Your task to perform on an android device: uninstall "Pluto TV - Live TV and Movies" Image 0: 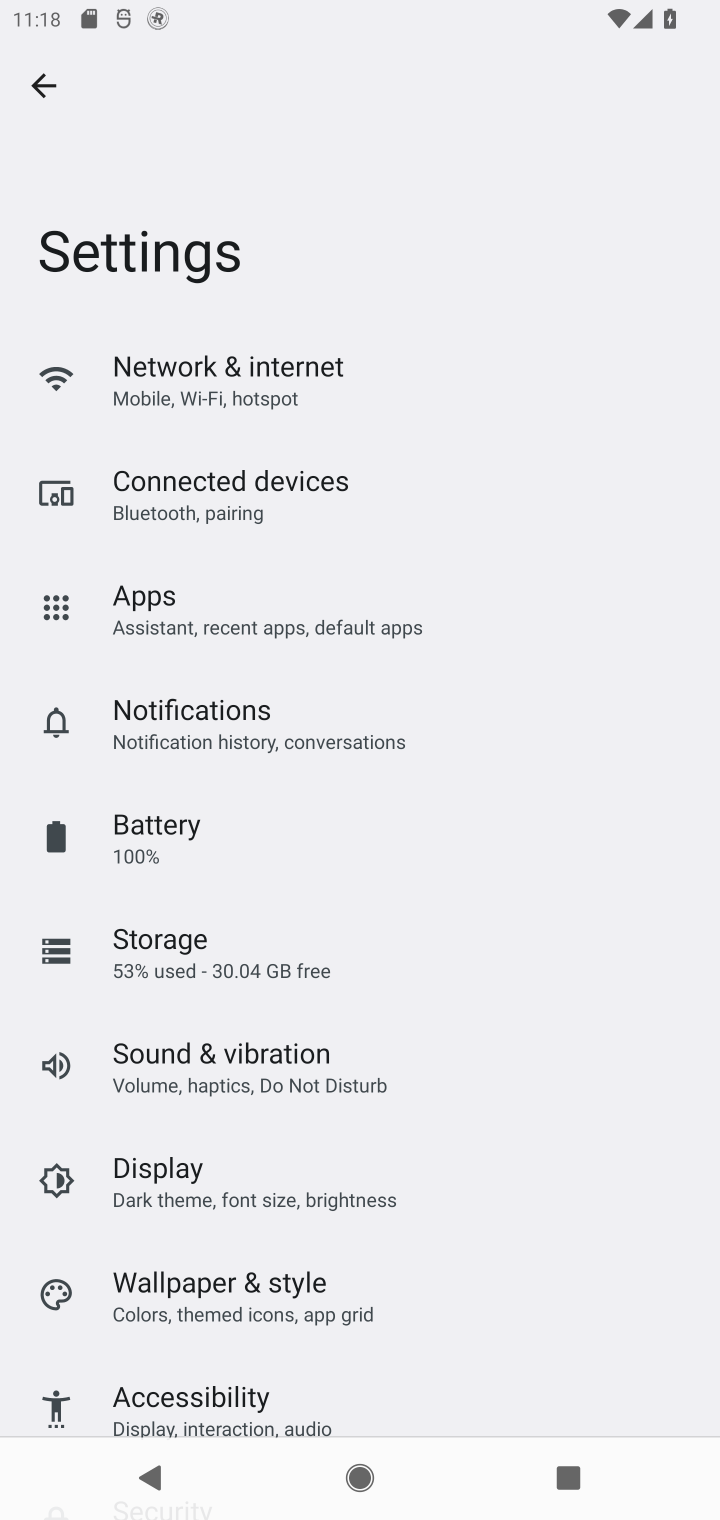
Step 0: press home button
Your task to perform on an android device: uninstall "Pluto TV - Live TV and Movies" Image 1: 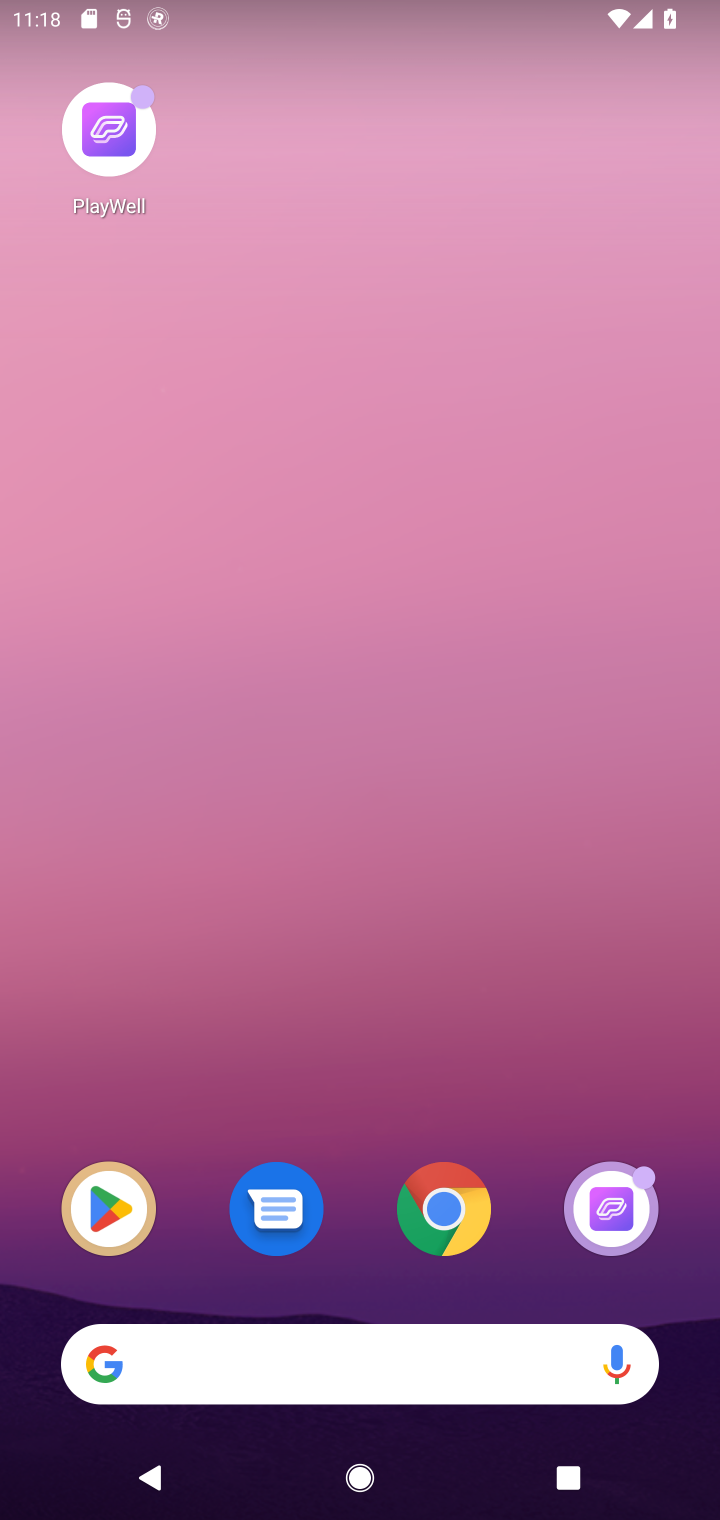
Step 1: drag from (523, 1220) to (481, 121)
Your task to perform on an android device: uninstall "Pluto TV - Live TV and Movies" Image 2: 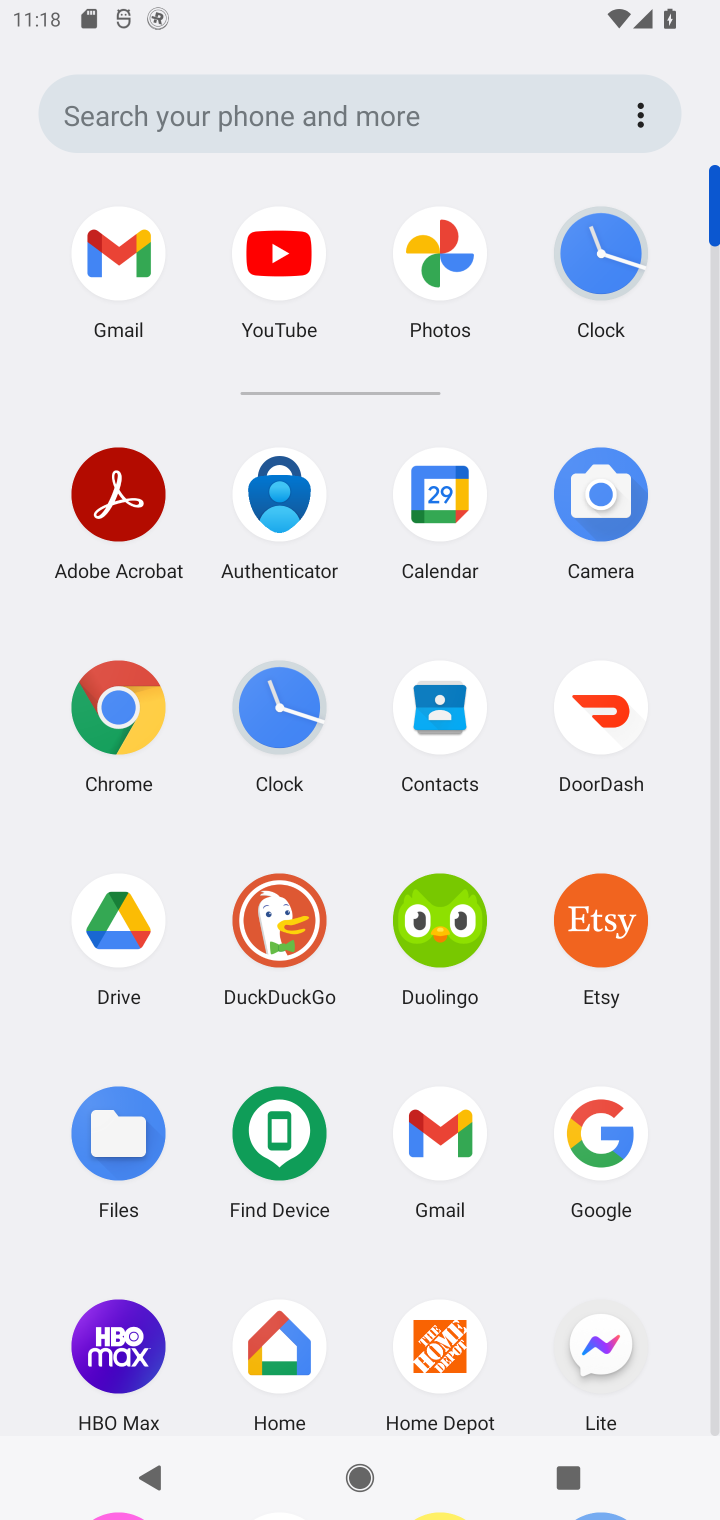
Step 2: drag from (534, 1271) to (521, 439)
Your task to perform on an android device: uninstall "Pluto TV - Live TV and Movies" Image 3: 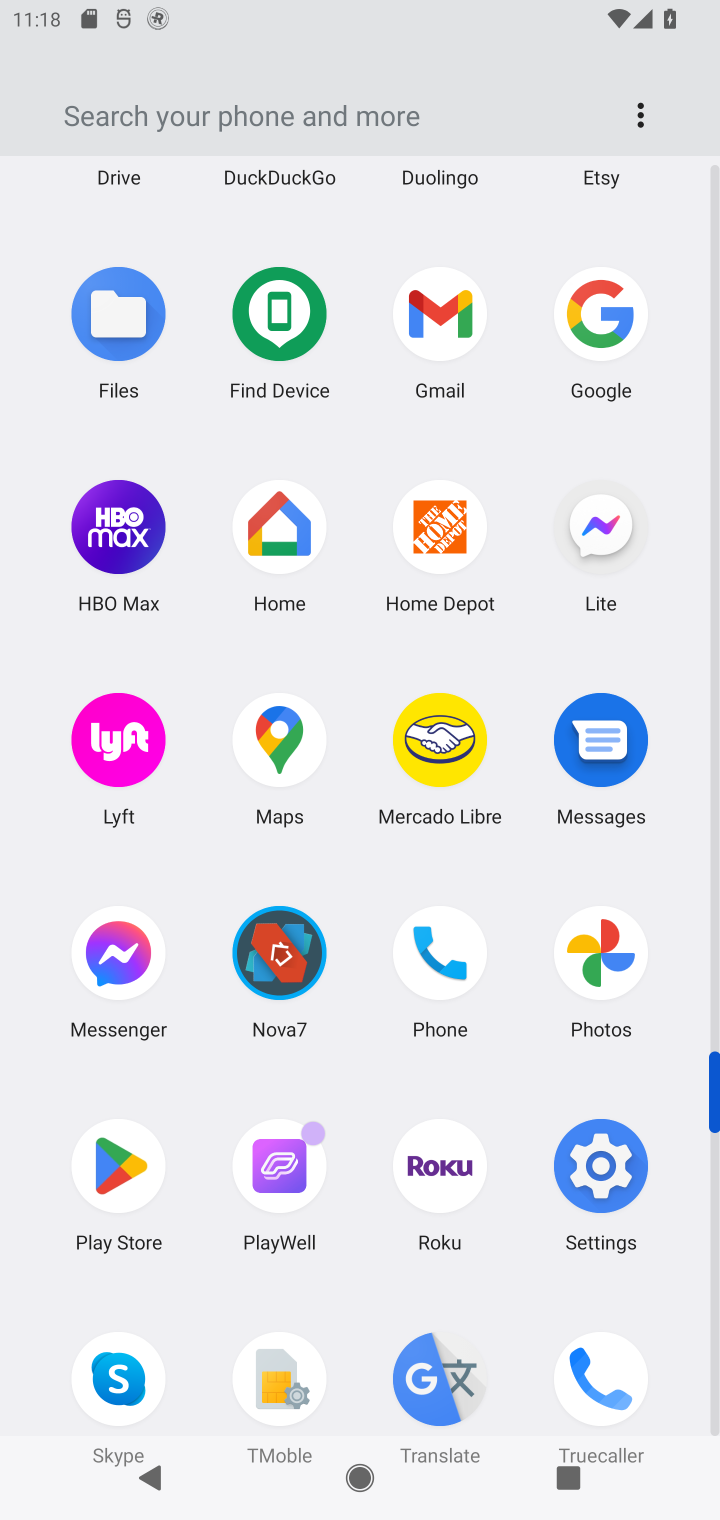
Step 3: click (104, 1149)
Your task to perform on an android device: uninstall "Pluto TV - Live TV and Movies" Image 4: 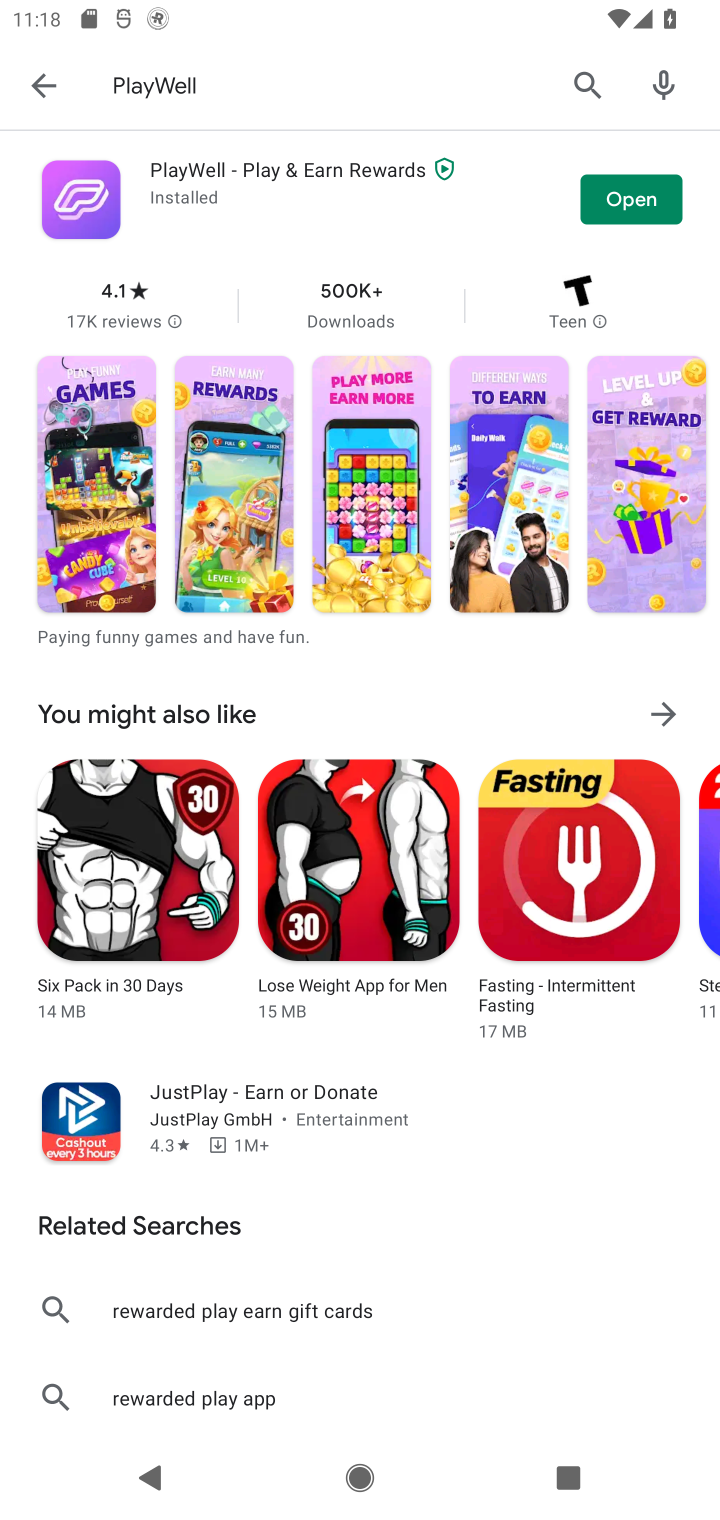
Step 4: click (425, 93)
Your task to perform on an android device: uninstall "Pluto TV - Live TV and Movies" Image 5: 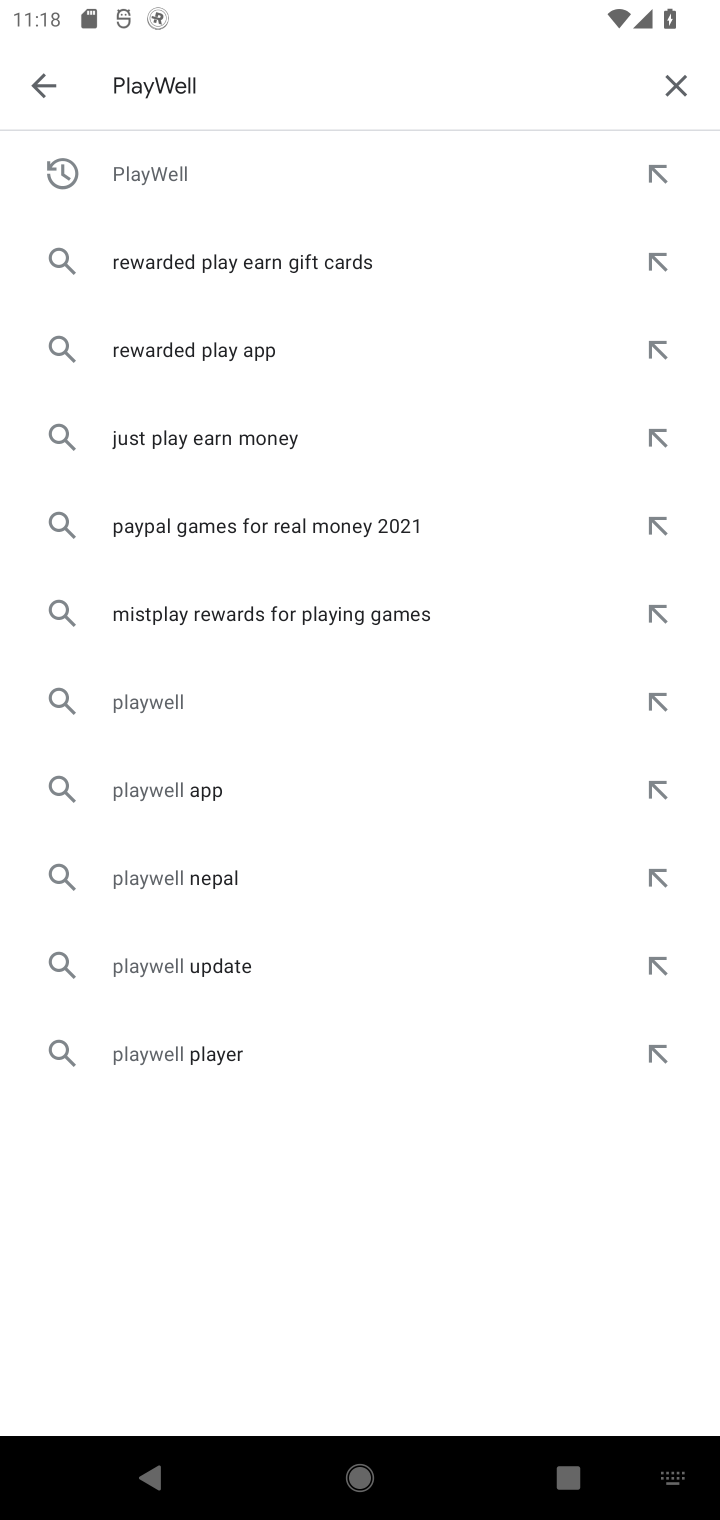
Step 5: click (675, 77)
Your task to perform on an android device: uninstall "Pluto TV - Live TV and Movies" Image 6: 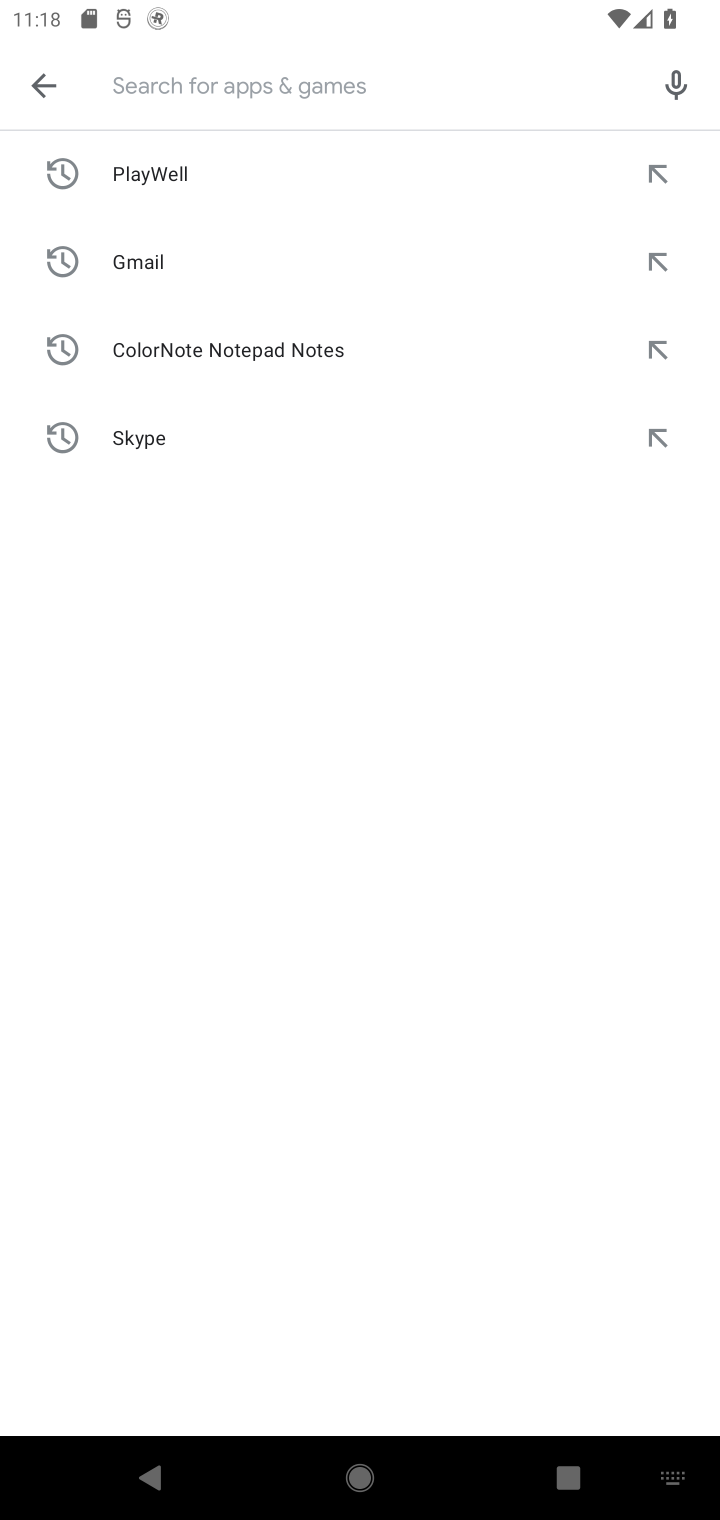
Step 6: type "Pluto TV - Live TV Movies"
Your task to perform on an android device: uninstall "Pluto TV - Live TV and Movies" Image 7: 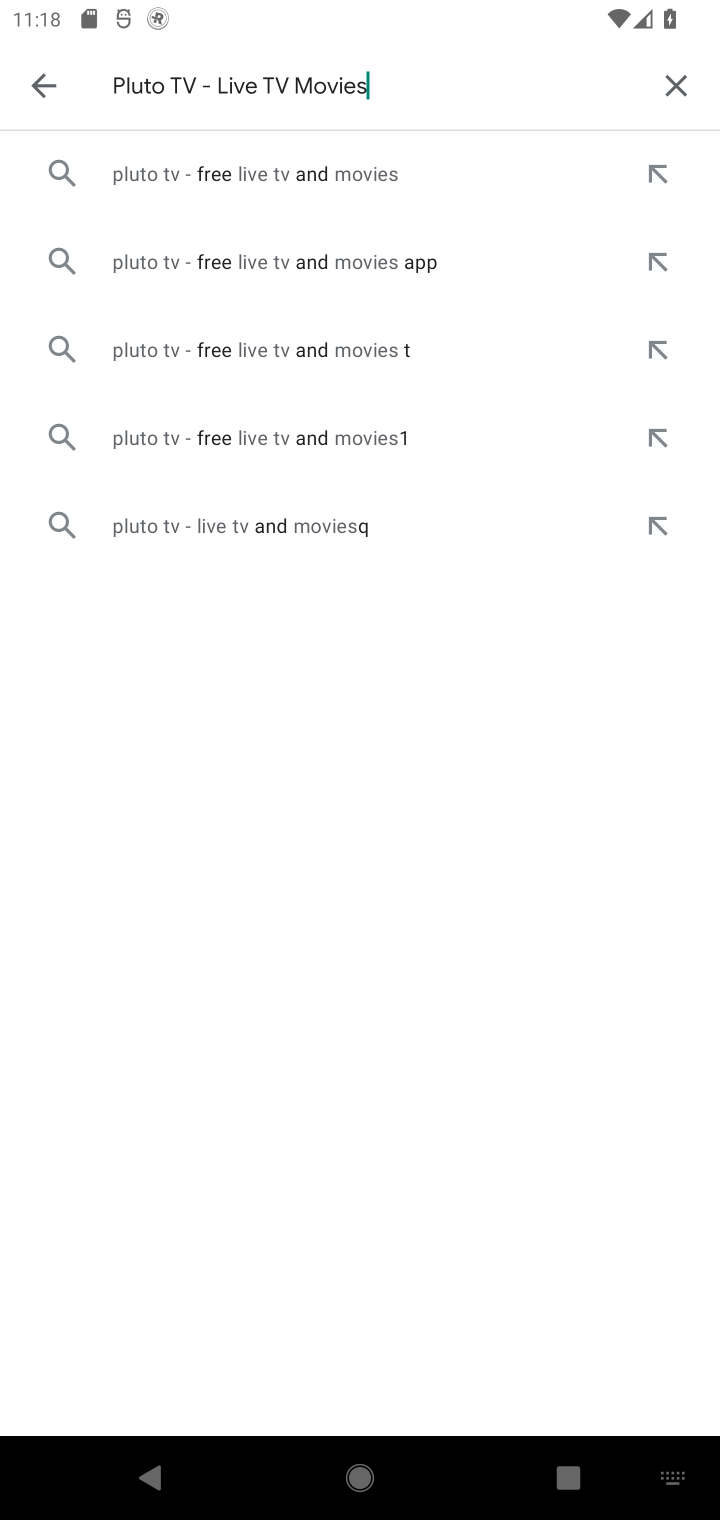
Step 7: press enter
Your task to perform on an android device: uninstall "Pluto TV - Live TV and Movies" Image 8: 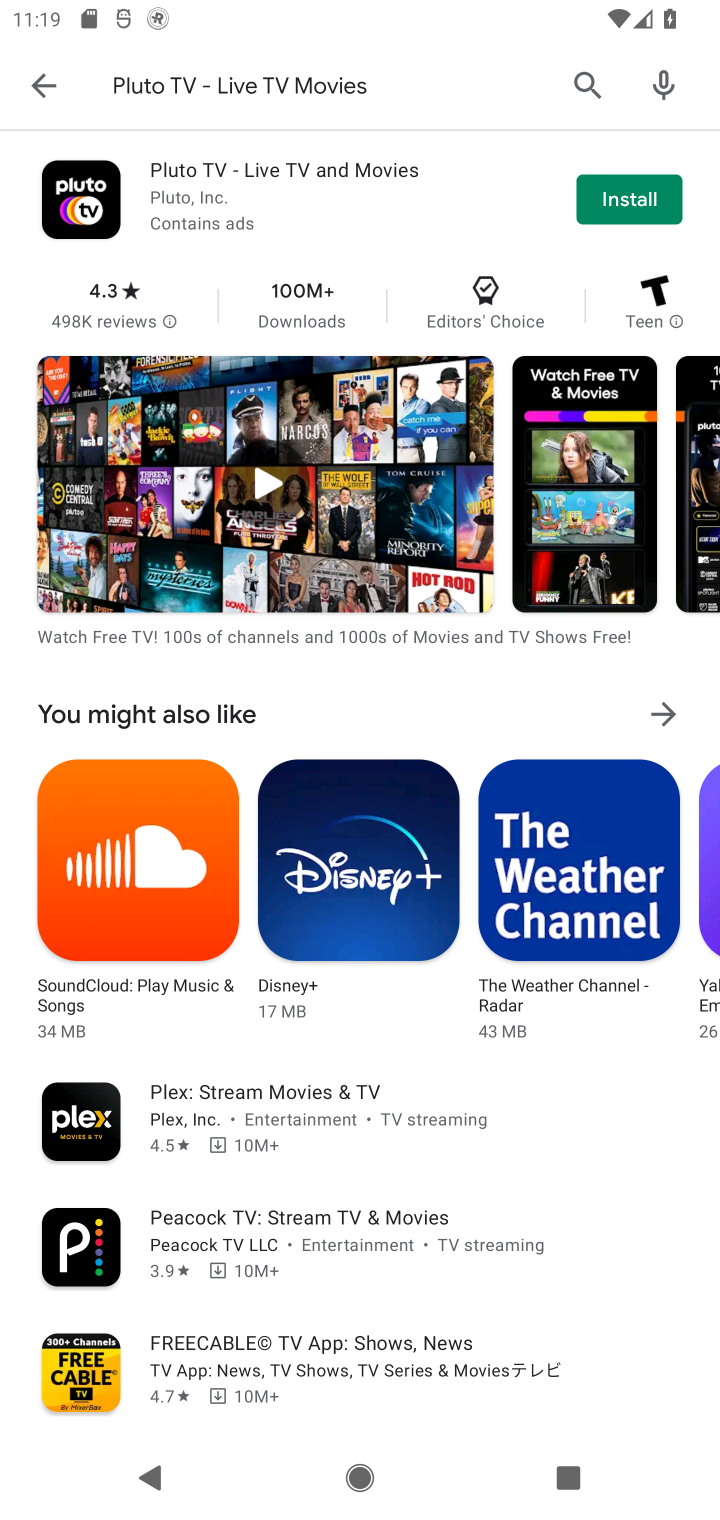
Step 8: task complete